Your task to perform on an android device: What's the weather today? Image 0: 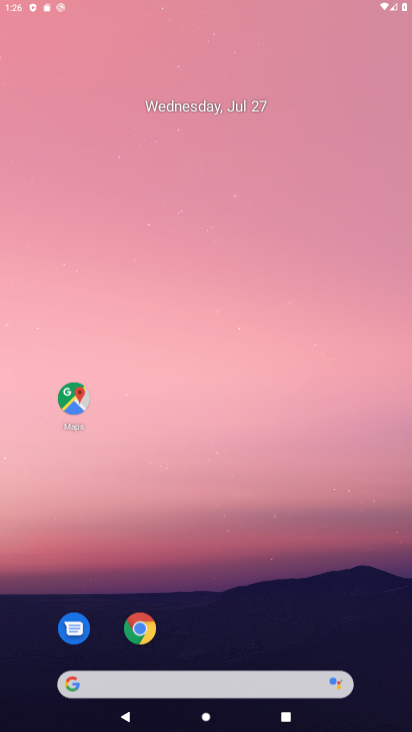
Step 0: press home button
Your task to perform on an android device: What's the weather today? Image 1: 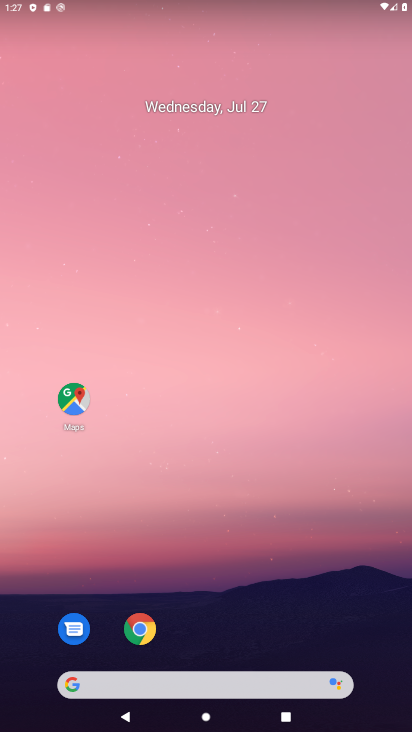
Step 1: click (73, 687)
Your task to perform on an android device: What's the weather today? Image 2: 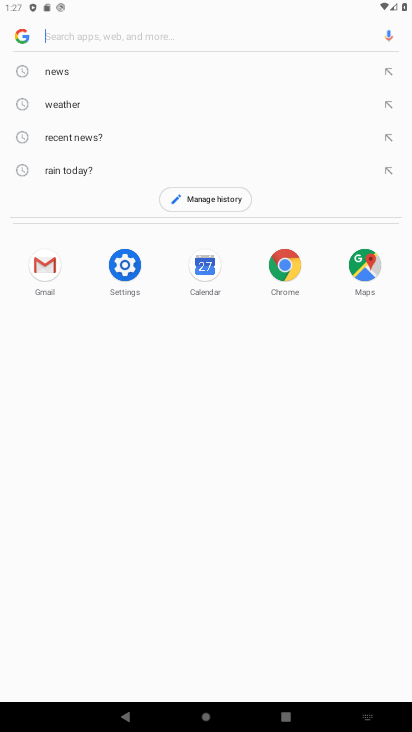
Step 2: type "weather today?"
Your task to perform on an android device: What's the weather today? Image 3: 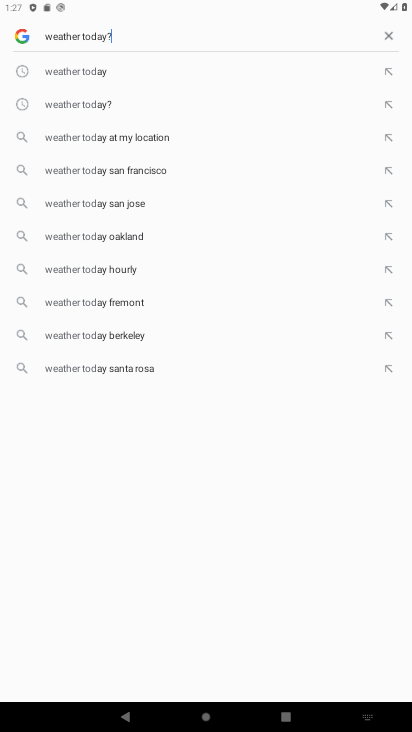
Step 3: press enter
Your task to perform on an android device: What's the weather today? Image 4: 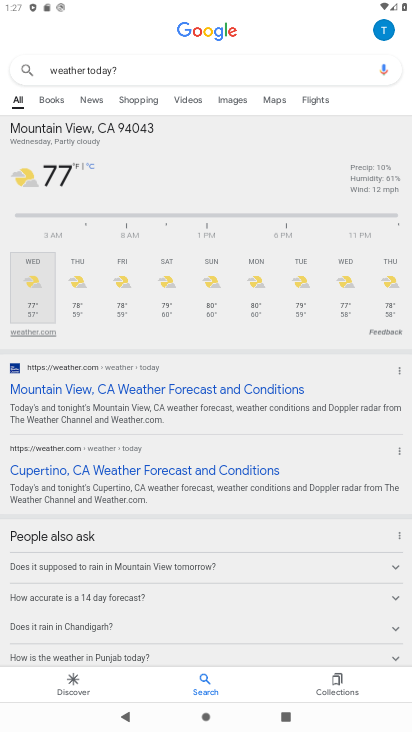
Step 4: task complete